Your task to perform on an android device: Show me popular videos on Youtube Image 0: 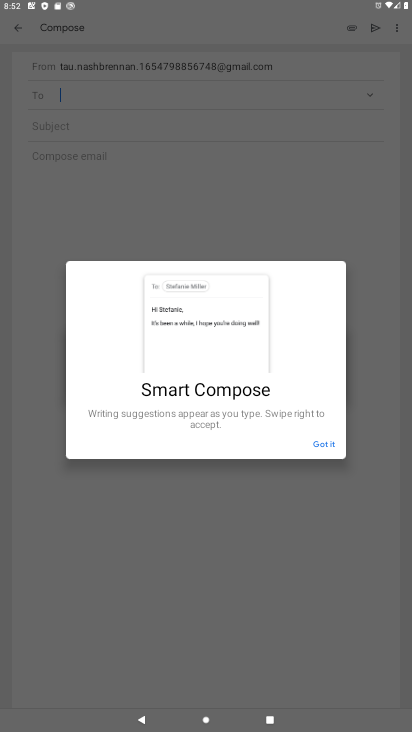
Step 0: press home button
Your task to perform on an android device: Show me popular videos on Youtube Image 1: 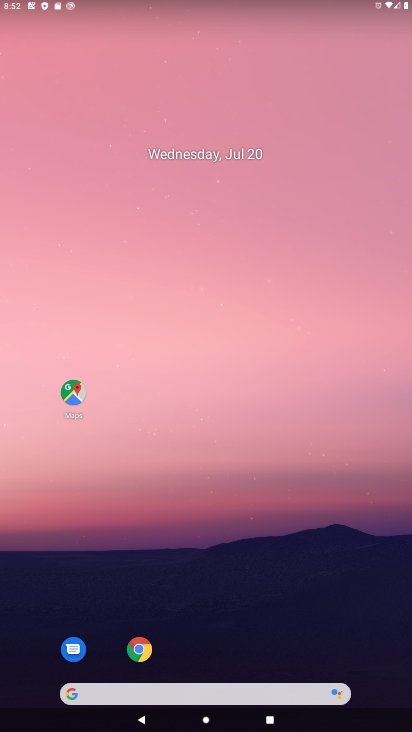
Step 1: drag from (188, 687) to (188, 255)
Your task to perform on an android device: Show me popular videos on Youtube Image 2: 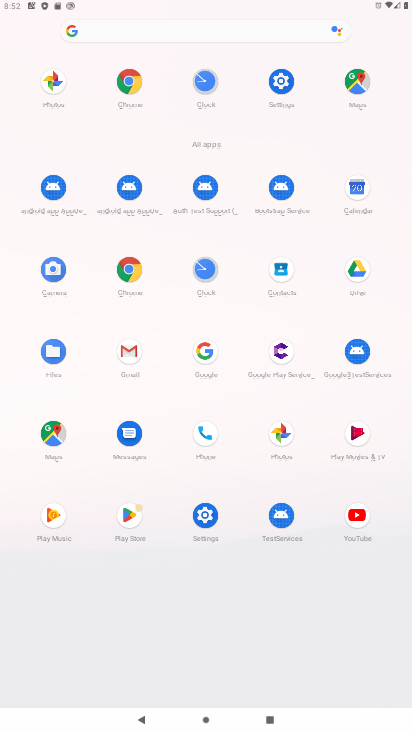
Step 2: click (361, 524)
Your task to perform on an android device: Show me popular videos on Youtube Image 3: 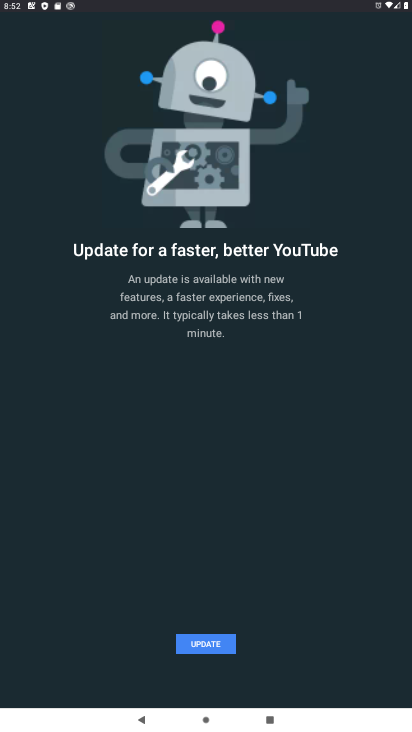
Step 3: click (192, 650)
Your task to perform on an android device: Show me popular videos on Youtube Image 4: 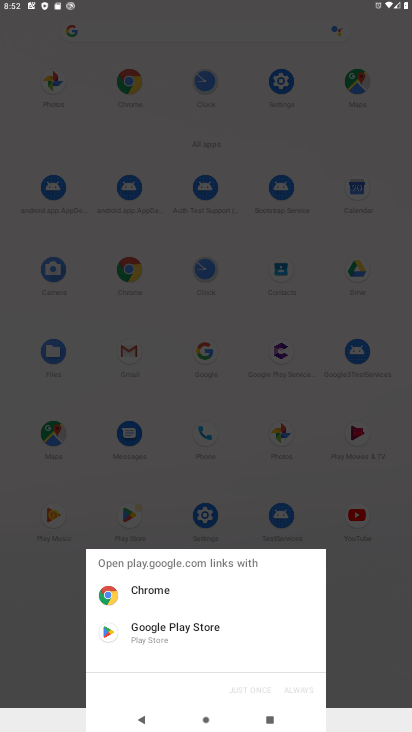
Step 4: click (156, 636)
Your task to perform on an android device: Show me popular videos on Youtube Image 5: 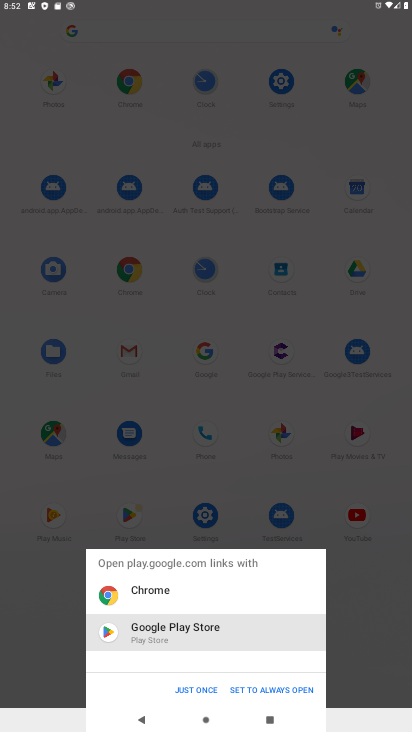
Step 5: click (199, 693)
Your task to perform on an android device: Show me popular videos on Youtube Image 6: 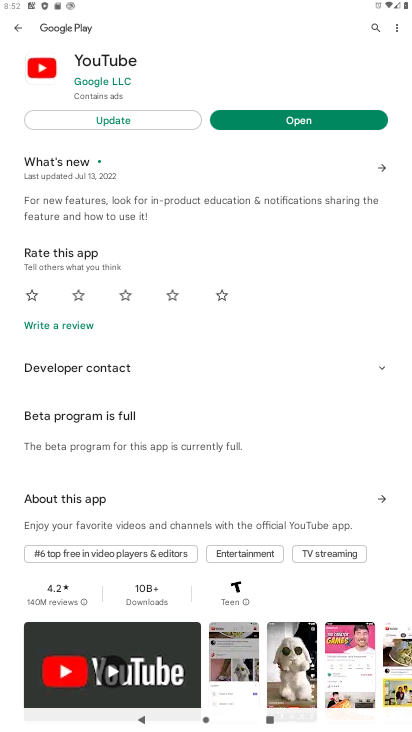
Step 6: click (125, 116)
Your task to perform on an android device: Show me popular videos on Youtube Image 7: 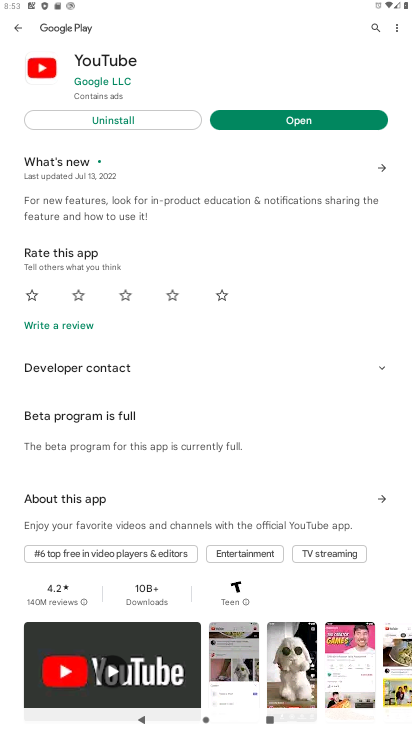
Step 7: click (269, 119)
Your task to perform on an android device: Show me popular videos on Youtube Image 8: 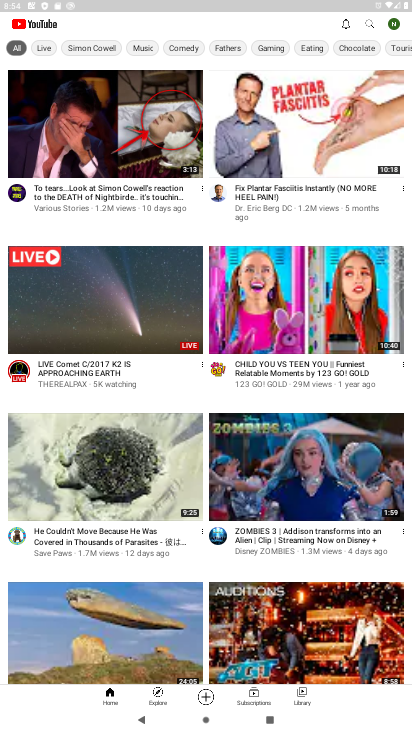
Step 8: task complete